Your task to perform on an android device: Open CNN.com Image 0: 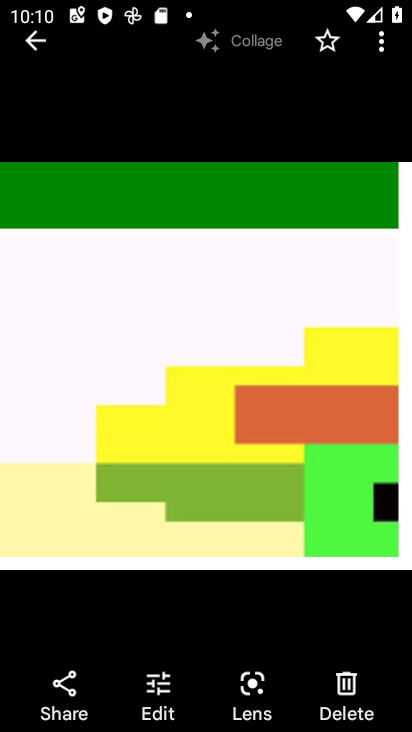
Step 0: press home button
Your task to perform on an android device: Open CNN.com Image 1: 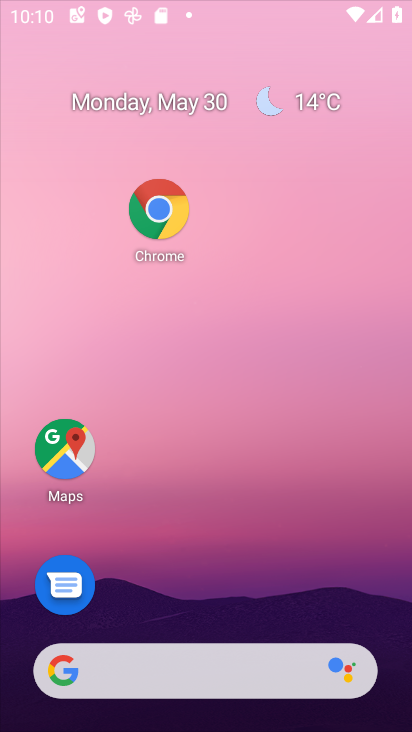
Step 1: drag from (186, 546) to (179, 2)
Your task to perform on an android device: Open CNN.com Image 2: 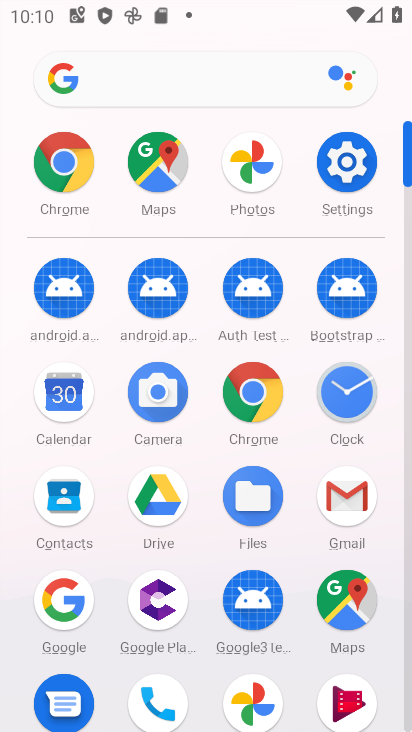
Step 2: click (159, 78)
Your task to perform on an android device: Open CNN.com Image 3: 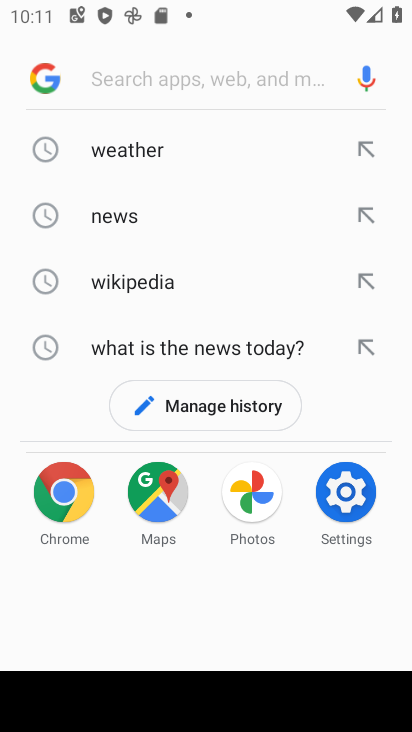
Step 3: type "cnn.com"
Your task to perform on an android device: Open CNN.com Image 4: 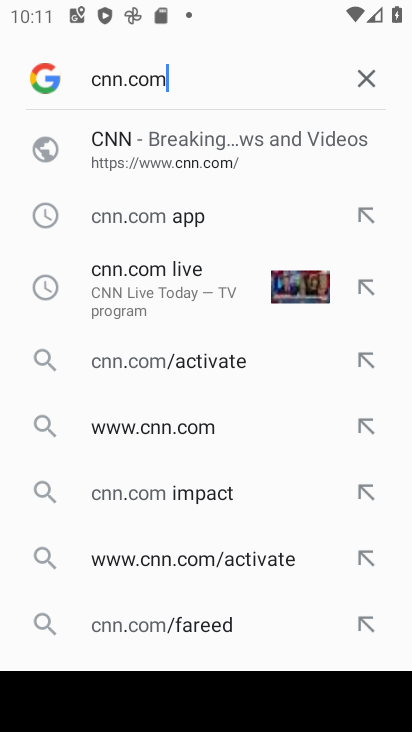
Step 4: click (175, 135)
Your task to perform on an android device: Open CNN.com Image 5: 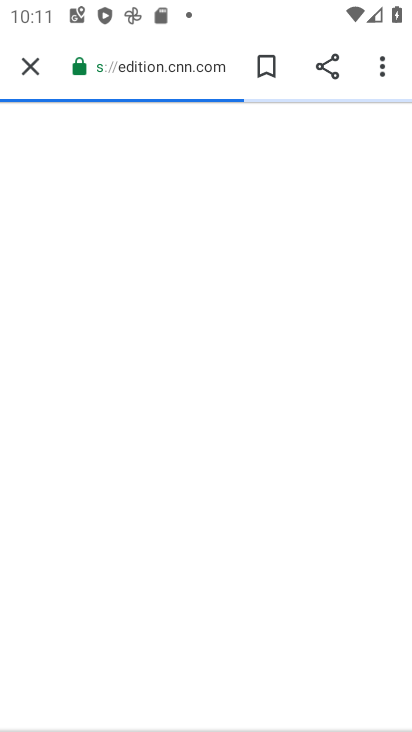
Step 5: task complete